Your task to perform on an android device: open device folders in google photos Image 0: 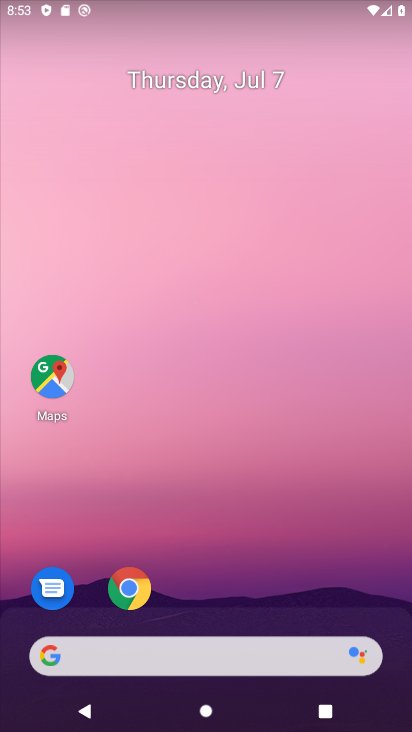
Step 0: drag from (233, 561) to (235, 4)
Your task to perform on an android device: open device folders in google photos Image 1: 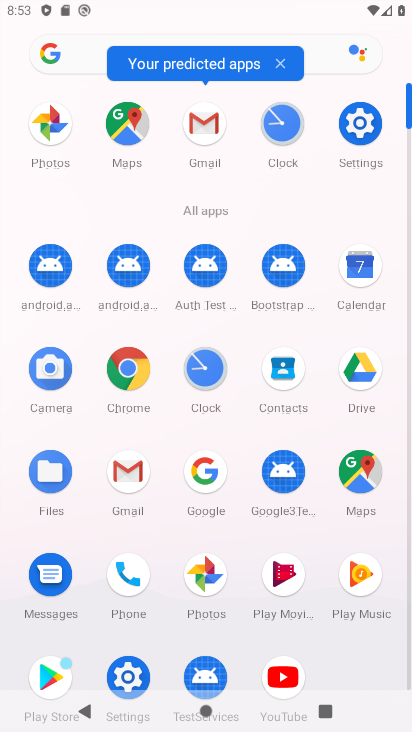
Step 1: click (46, 124)
Your task to perform on an android device: open device folders in google photos Image 2: 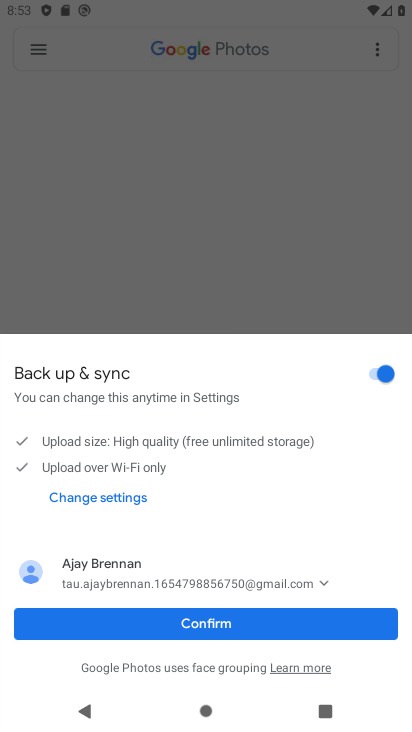
Step 2: click (255, 622)
Your task to perform on an android device: open device folders in google photos Image 3: 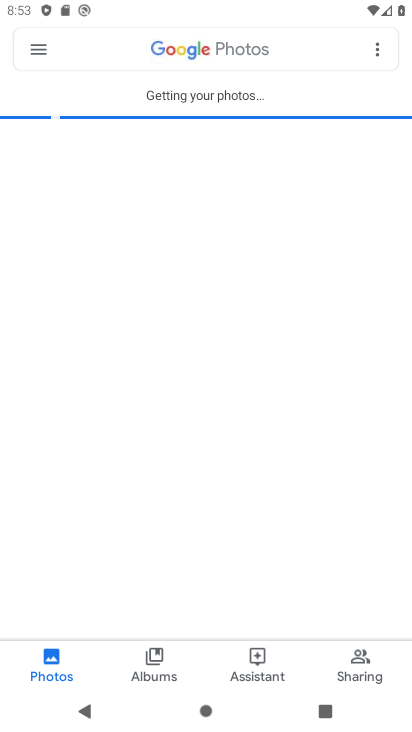
Step 3: click (33, 54)
Your task to perform on an android device: open device folders in google photos Image 4: 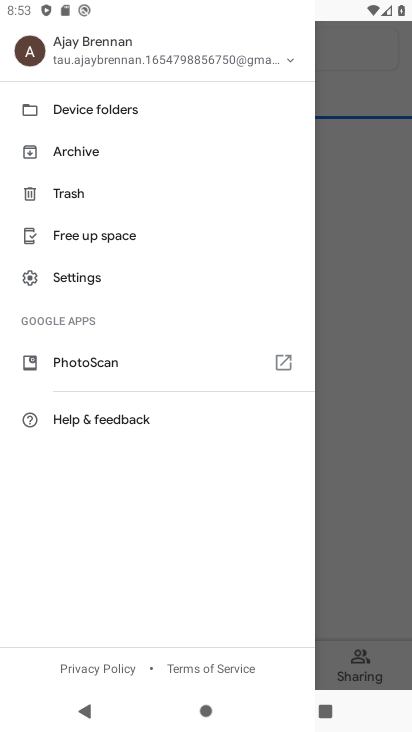
Step 4: click (97, 113)
Your task to perform on an android device: open device folders in google photos Image 5: 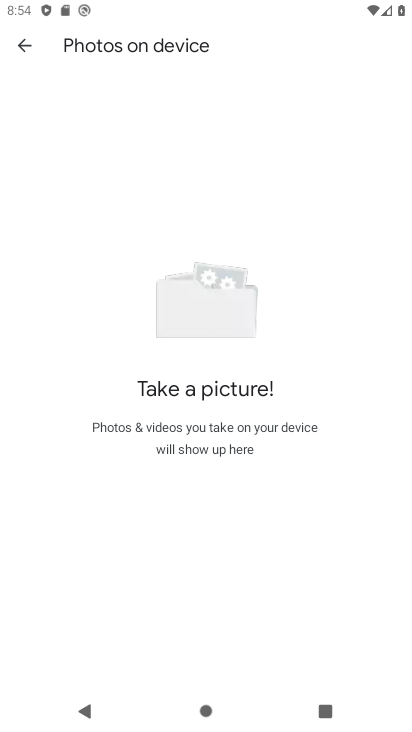
Step 5: task complete